Your task to perform on an android device: add a label to a message in the gmail app Image 0: 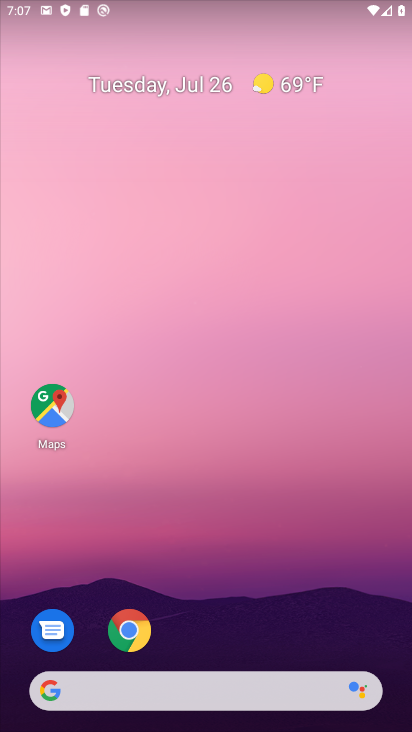
Step 0: drag from (208, 631) to (234, 92)
Your task to perform on an android device: add a label to a message in the gmail app Image 1: 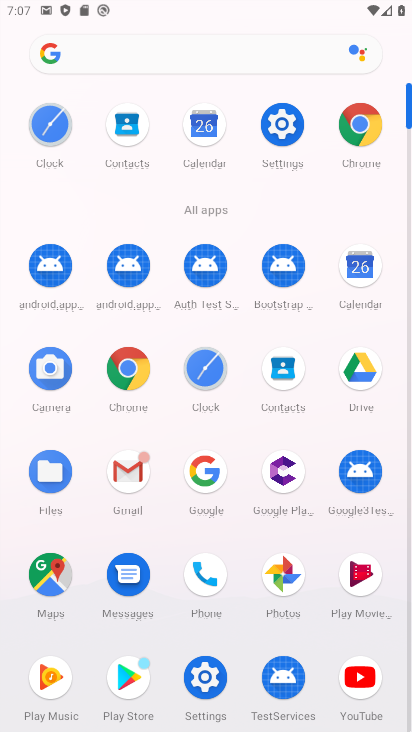
Step 1: click (136, 475)
Your task to perform on an android device: add a label to a message in the gmail app Image 2: 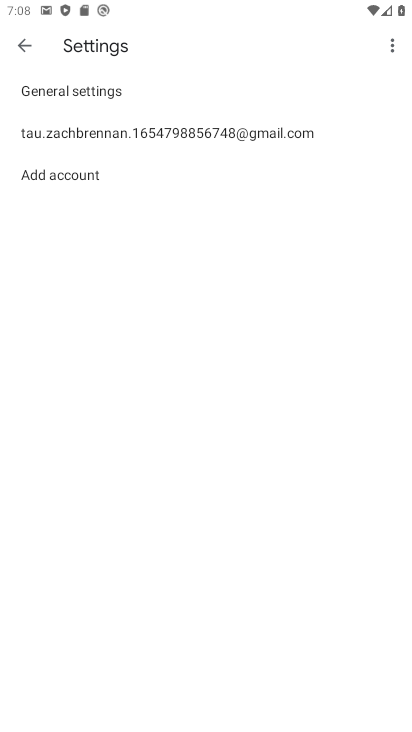
Step 2: press home button
Your task to perform on an android device: add a label to a message in the gmail app Image 3: 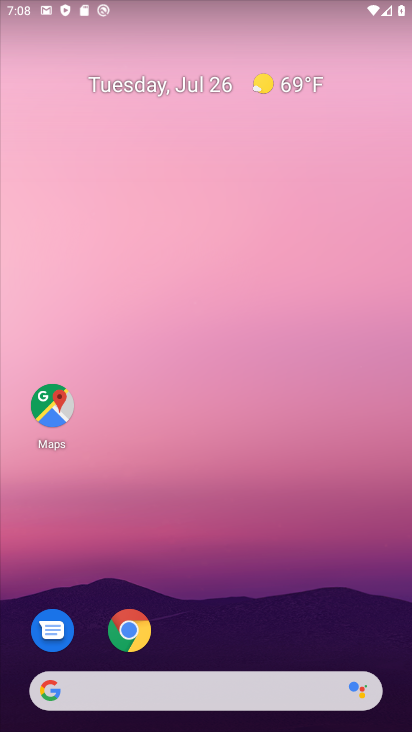
Step 3: drag from (290, 608) to (268, 183)
Your task to perform on an android device: add a label to a message in the gmail app Image 4: 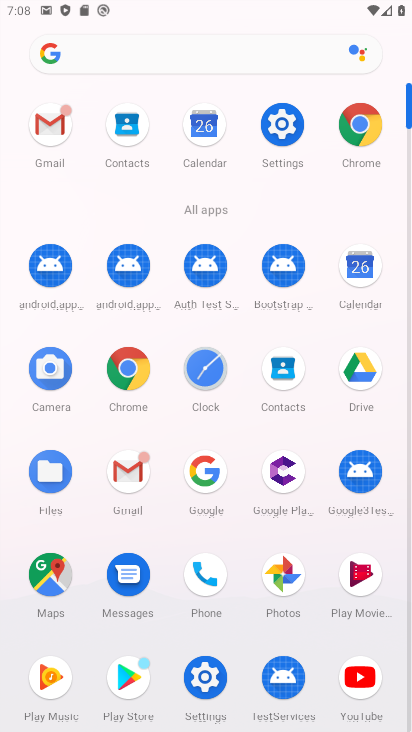
Step 4: click (130, 481)
Your task to perform on an android device: add a label to a message in the gmail app Image 5: 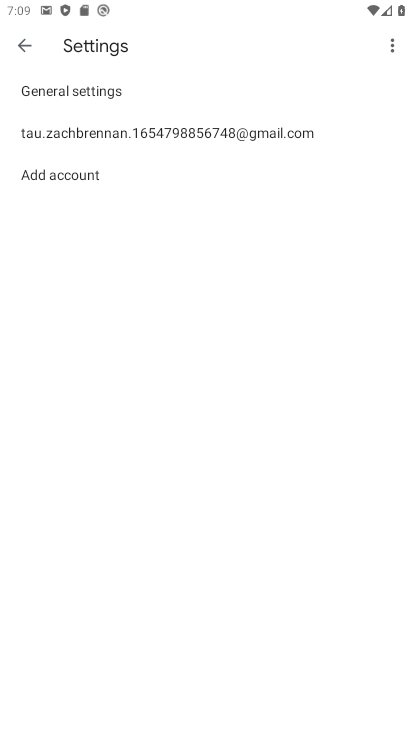
Step 5: press back button
Your task to perform on an android device: add a label to a message in the gmail app Image 6: 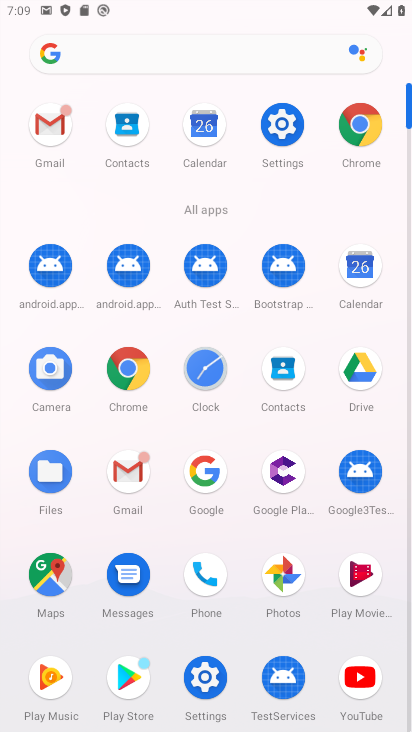
Step 6: click (63, 120)
Your task to perform on an android device: add a label to a message in the gmail app Image 7: 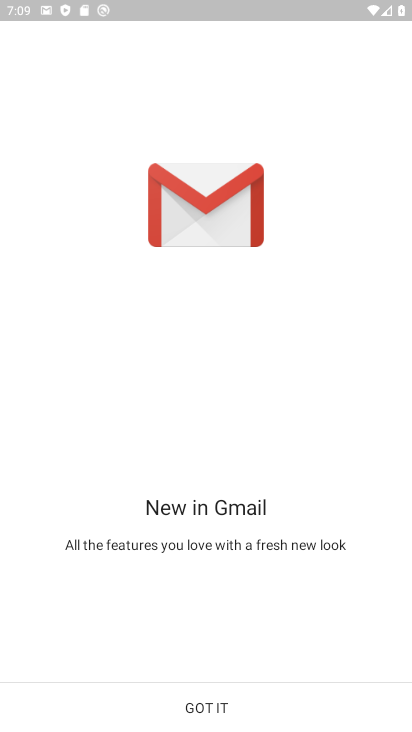
Step 7: click (217, 706)
Your task to perform on an android device: add a label to a message in the gmail app Image 8: 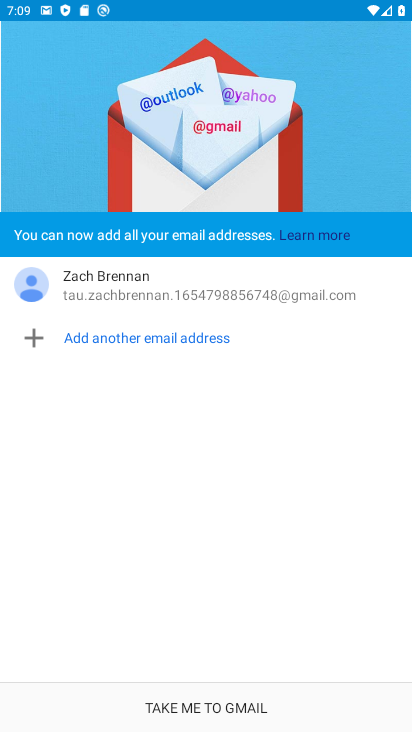
Step 8: click (213, 702)
Your task to perform on an android device: add a label to a message in the gmail app Image 9: 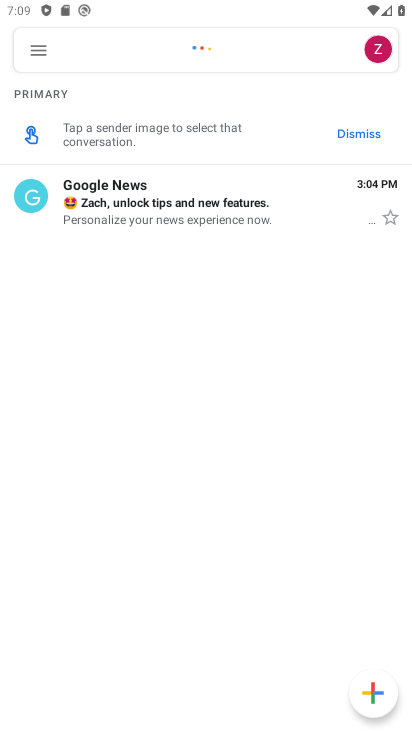
Step 9: click (306, 216)
Your task to perform on an android device: add a label to a message in the gmail app Image 10: 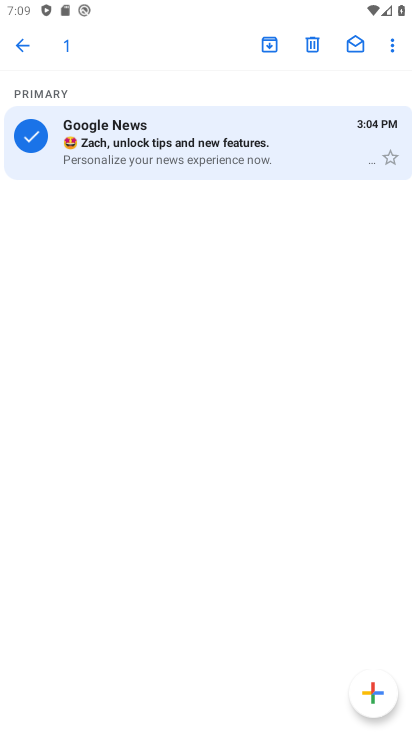
Step 10: click (388, 52)
Your task to perform on an android device: add a label to a message in the gmail app Image 11: 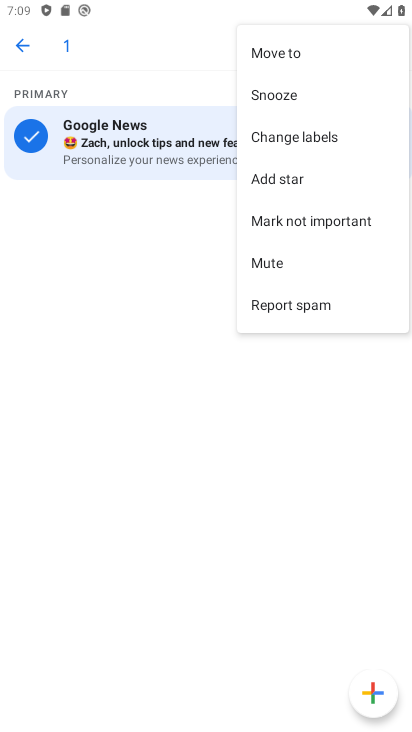
Step 11: click (326, 131)
Your task to perform on an android device: add a label to a message in the gmail app Image 12: 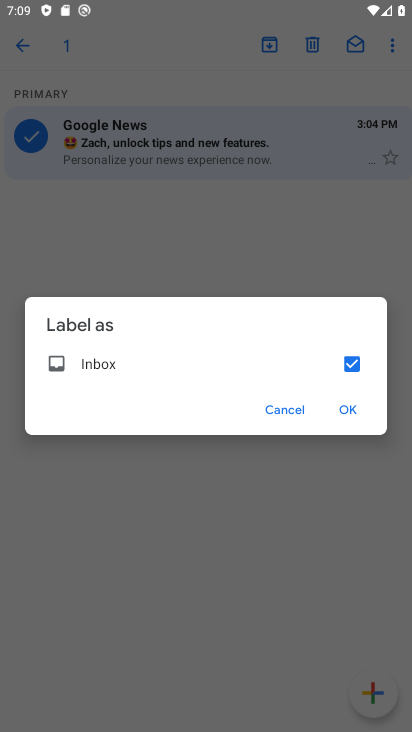
Step 12: click (347, 359)
Your task to perform on an android device: add a label to a message in the gmail app Image 13: 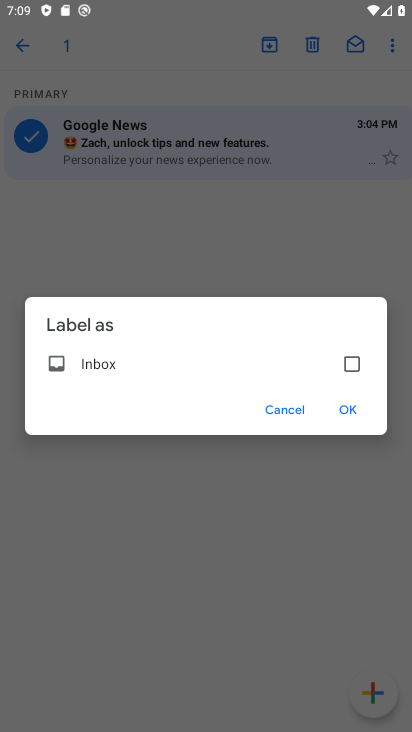
Step 13: click (344, 364)
Your task to perform on an android device: add a label to a message in the gmail app Image 14: 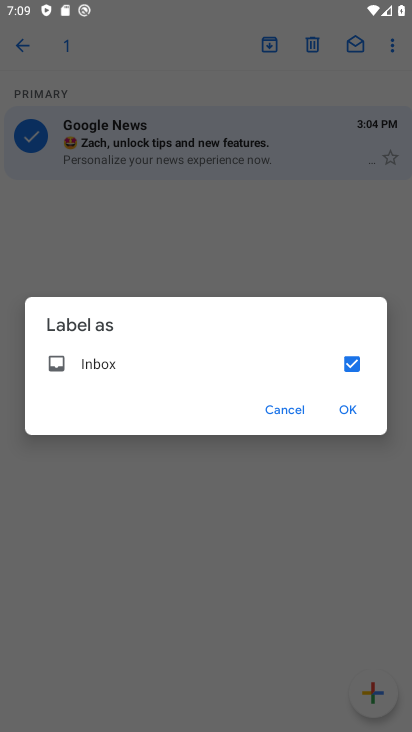
Step 14: click (350, 413)
Your task to perform on an android device: add a label to a message in the gmail app Image 15: 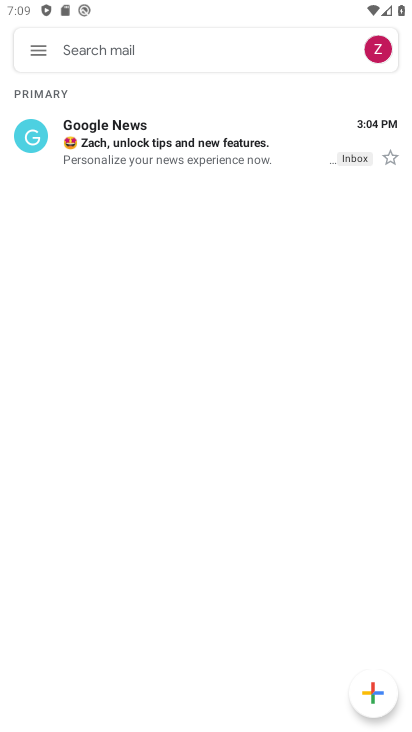
Step 15: task complete